Your task to perform on an android device: Open Google Chrome and open the bookmarks view Image 0: 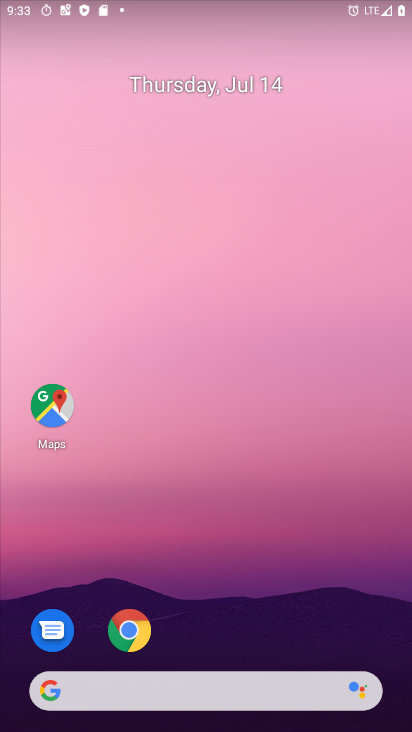
Step 0: drag from (204, 716) to (184, 323)
Your task to perform on an android device: Open Google Chrome and open the bookmarks view Image 1: 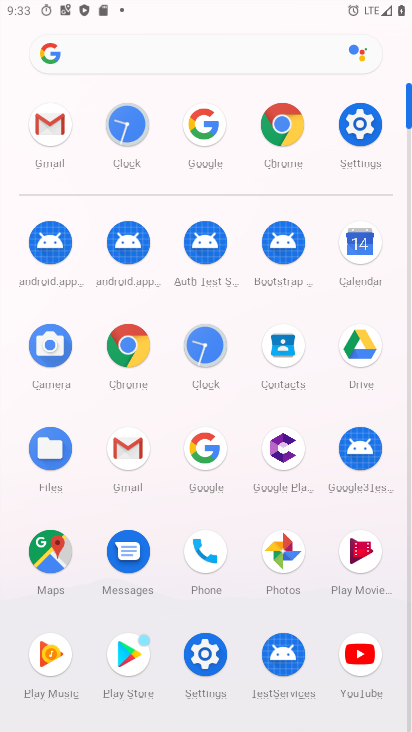
Step 1: click (125, 348)
Your task to perform on an android device: Open Google Chrome and open the bookmarks view Image 2: 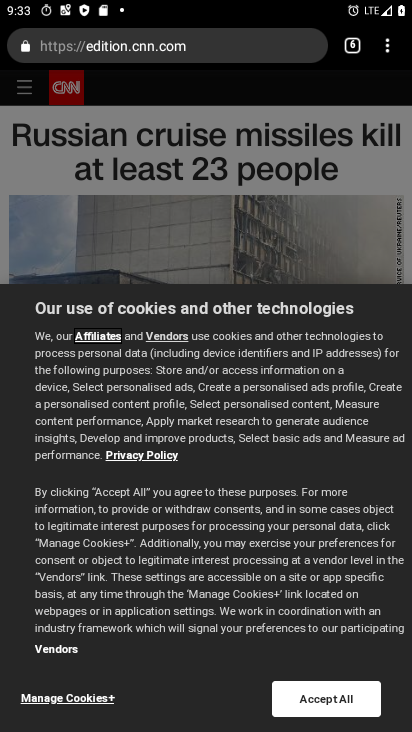
Step 2: task complete